Your task to perform on an android device: all mails in gmail Image 0: 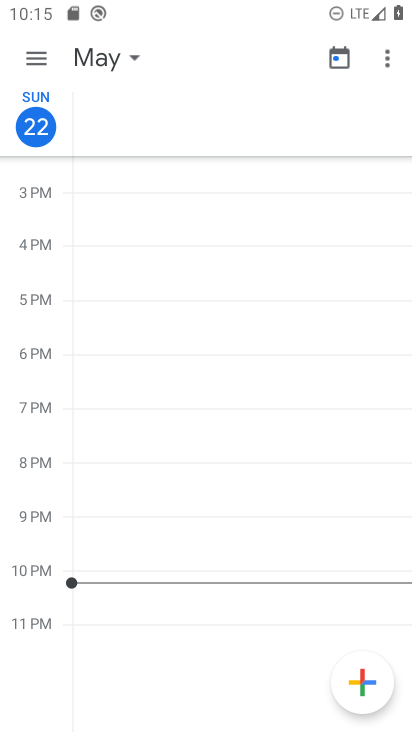
Step 0: press home button
Your task to perform on an android device: all mails in gmail Image 1: 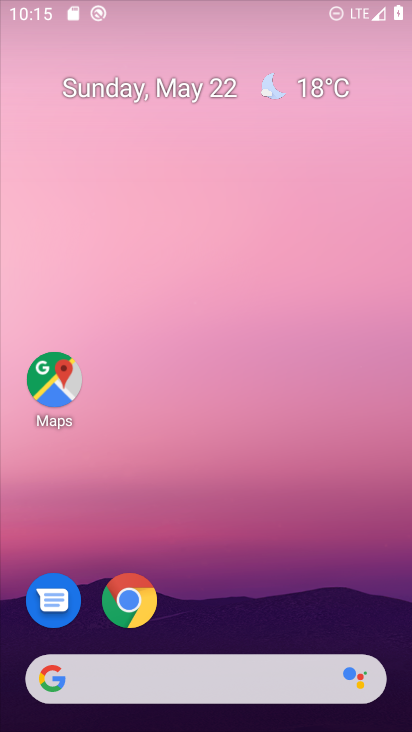
Step 1: drag from (385, 658) to (285, 76)
Your task to perform on an android device: all mails in gmail Image 2: 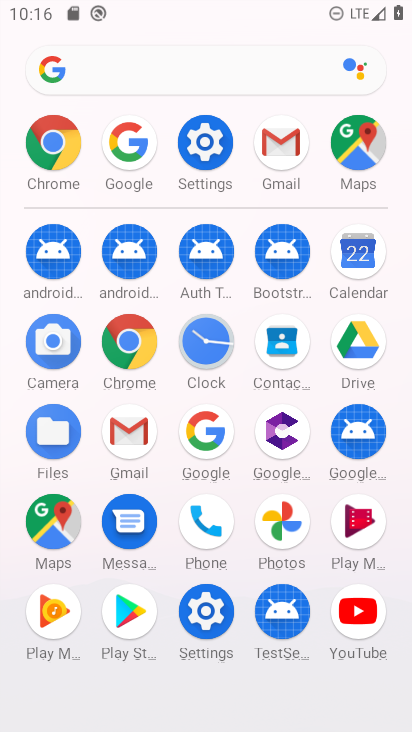
Step 2: click (102, 423)
Your task to perform on an android device: all mails in gmail Image 3: 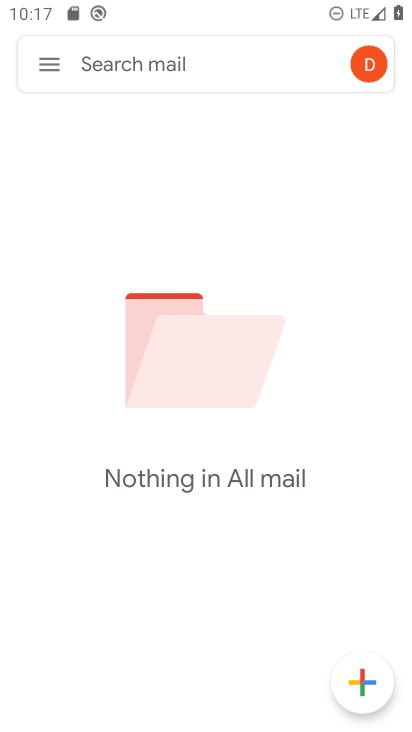
Step 3: click (37, 73)
Your task to perform on an android device: all mails in gmail Image 4: 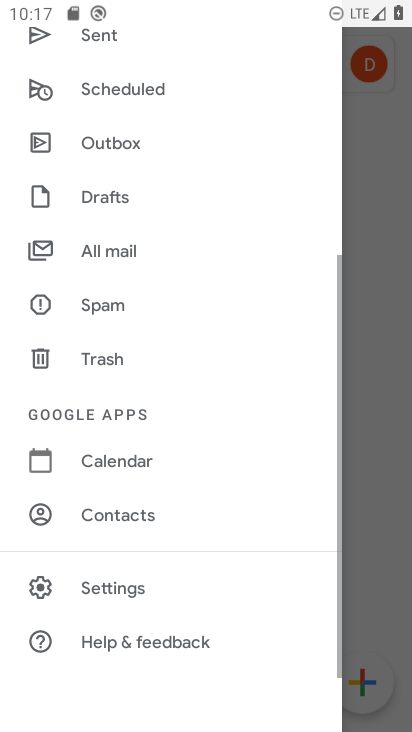
Step 4: click (115, 255)
Your task to perform on an android device: all mails in gmail Image 5: 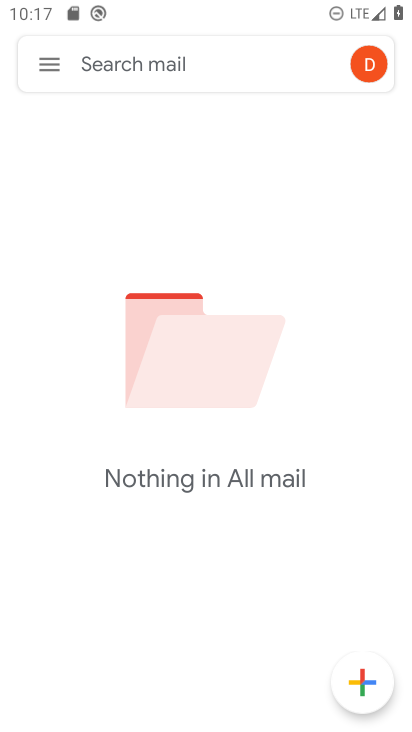
Step 5: task complete